Your task to perform on an android device: Open Youtube and go to the subscriptions tab Image 0: 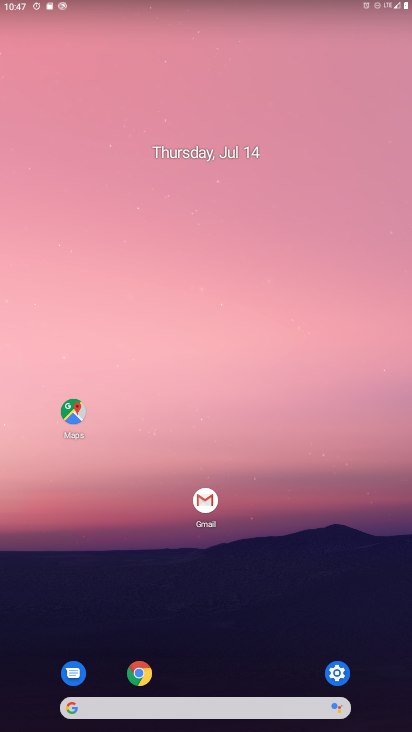
Step 0: click (213, 497)
Your task to perform on an android device: Open Youtube and go to the subscriptions tab Image 1: 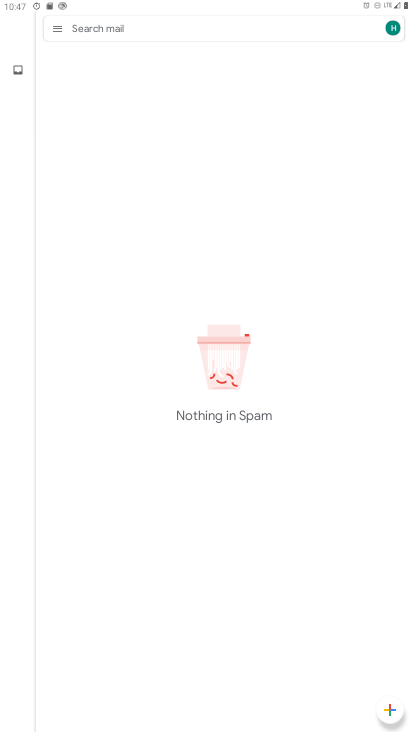
Step 1: press home button
Your task to perform on an android device: Open Youtube and go to the subscriptions tab Image 2: 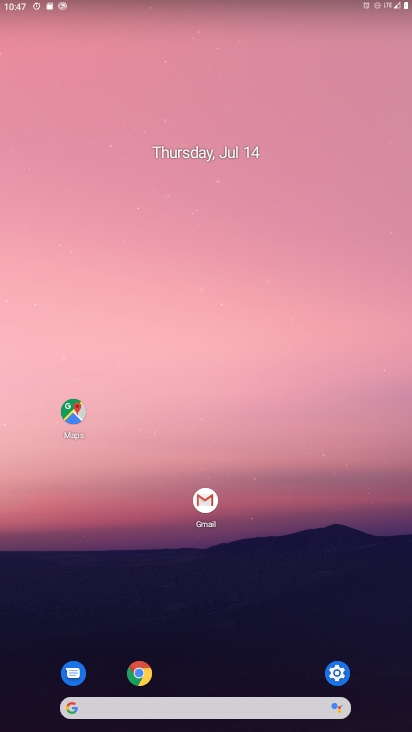
Step 2: drag from (249, 364) to (239, 120)
Your task to perform on an android device: Open Youtube and go to the subscriptions tab Image 3: 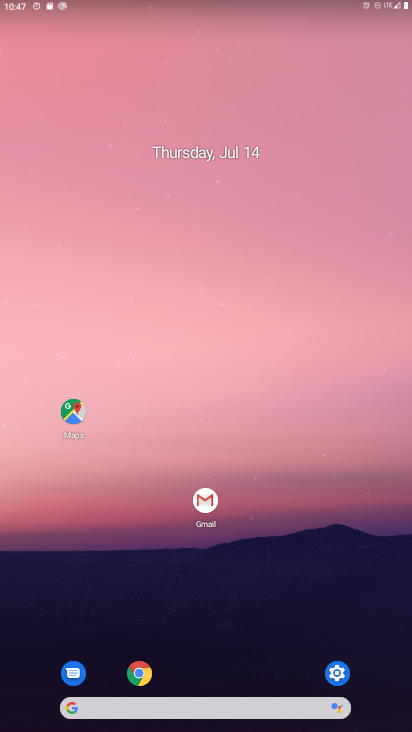
Step 3: drag from (285, 710) to (286, 87)
Your task to perform on an android device: Open Youtube and go to the subscriptions tab Image 4: 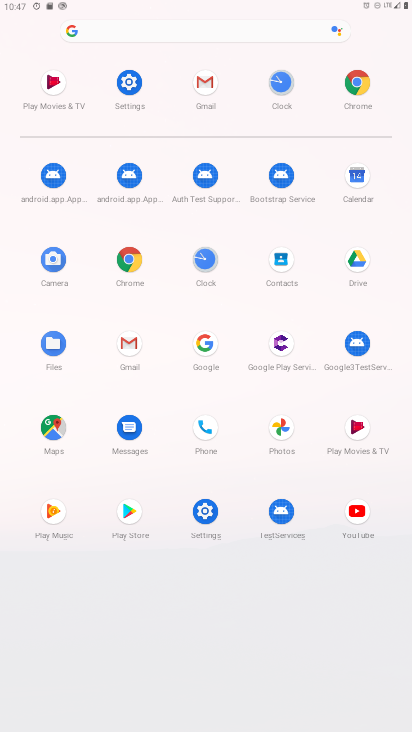
Step 4: click (359, 522)
Your task to perform on an android device: Open Youtube and go to the subscriptions tab Image 5: 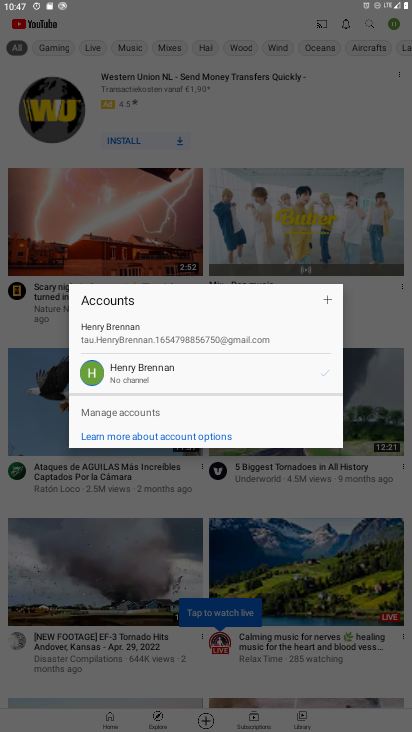
Step 5: click (157, 366)
Your task to perform on an android device: Open Youtube and go to the subscriptions tab Image 6: 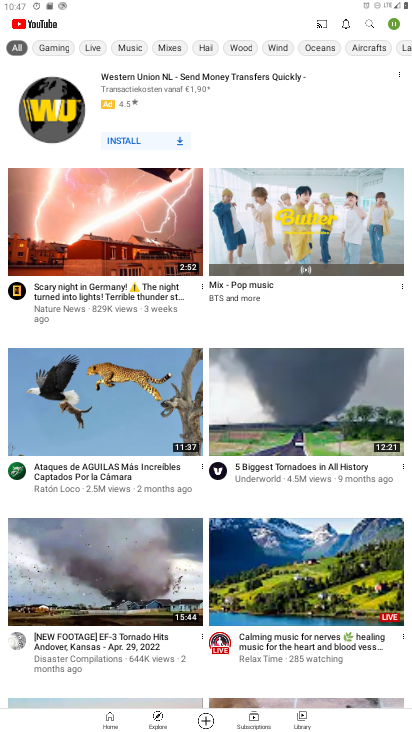
Step 6: click (257, 721)
Your task to perform on an android device: Open Youtube and go to the subscriptions tab Image 7: 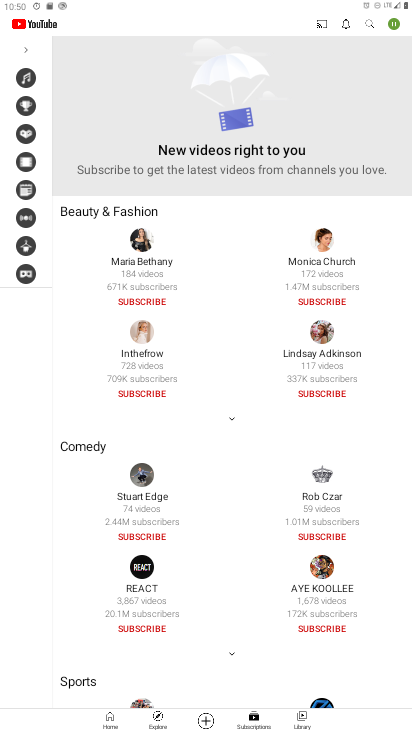
Step 7: task complete